Your task to perform on an android device: check android version Image 0: 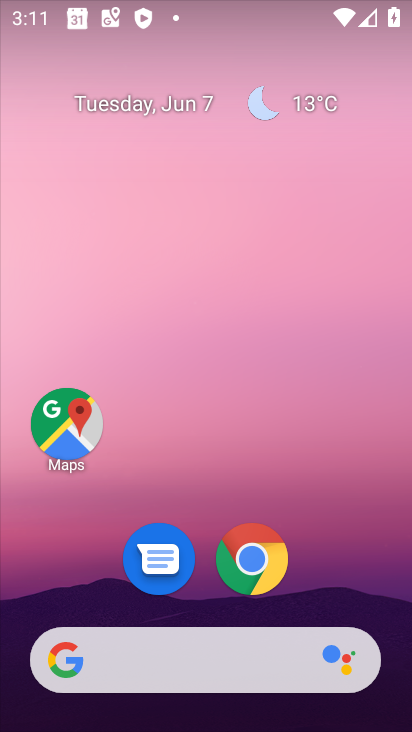
Step 0: drag from (355, 544) to (224, 134)
Your task to perform on an android device: check android version Image 1: 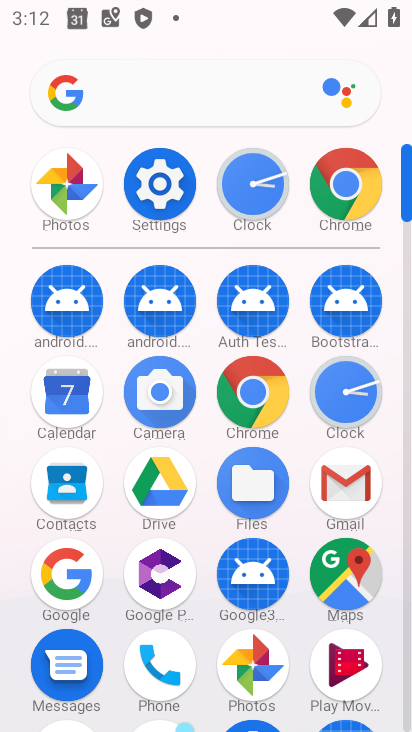
Step 1: click (160, 183)
Your task to perform on an android device: check android version Image 2: 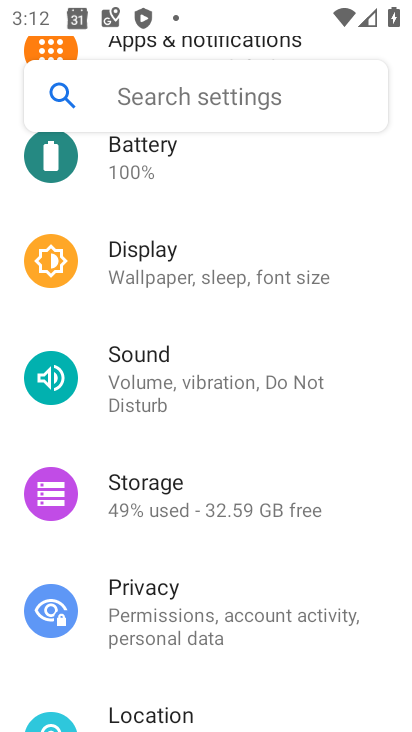
Step 2: drag from (195, 450) to (181, 319)
Your task to perform on an android device: check android version Image 3: 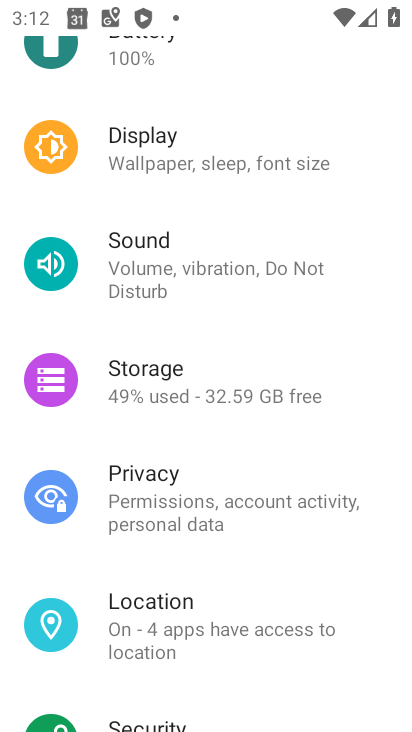
Step 3: drag from (191, 554) to (208, 434)
Your task to perform on an android device: check android version Image 4: 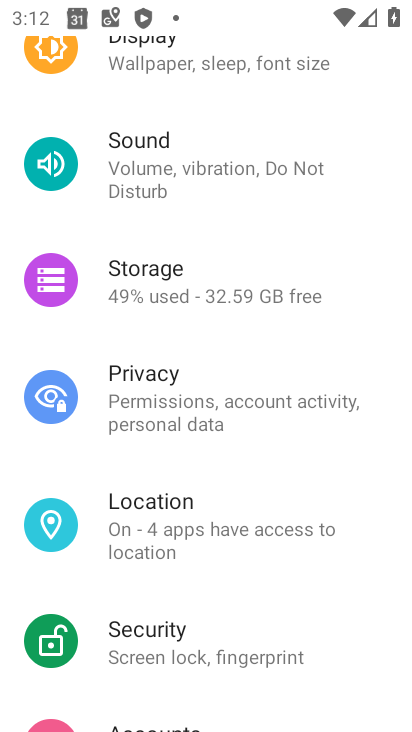
Step 4: drag from (194, 609) to (208, 470)
Your task to perform on an android device: check android version Image 5: 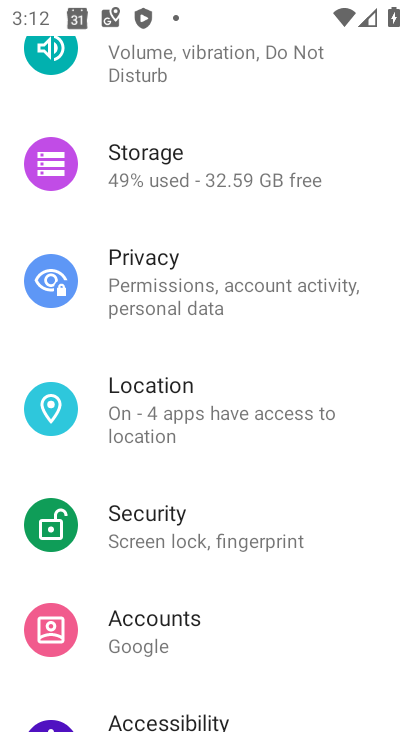
Step 5: drag from (244, 631) to (256, 449)
Your task to perform on an android device: check android version Image 6: 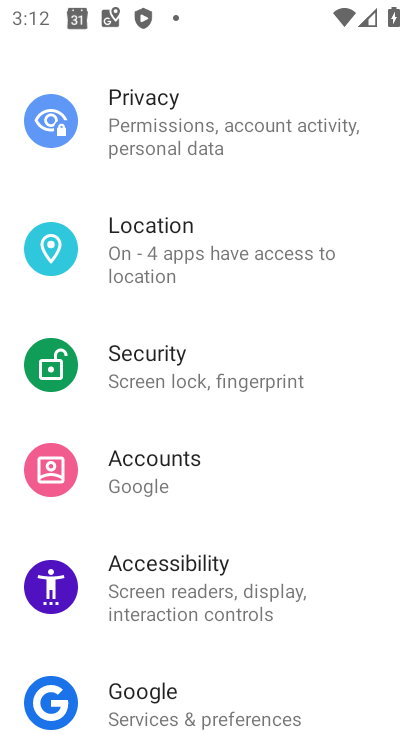
Step 6: drag from (206, 641) to (183, 482)
Your task to perform on an android device: check android version Image 7: 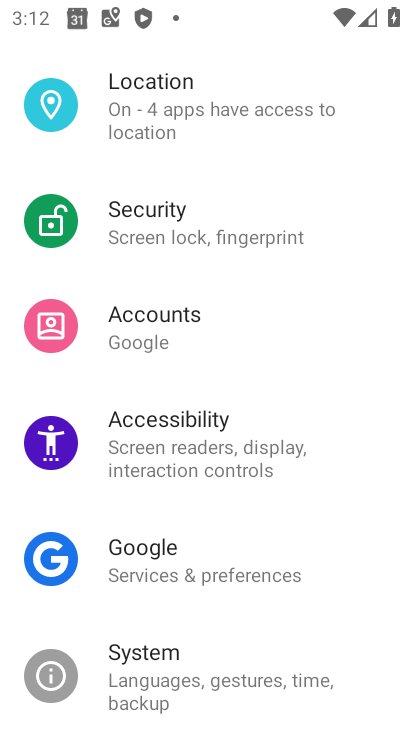
Step 7: drag from (189, 620) to (169, 470)
Your task to perform on an android device: check android version Image 8: 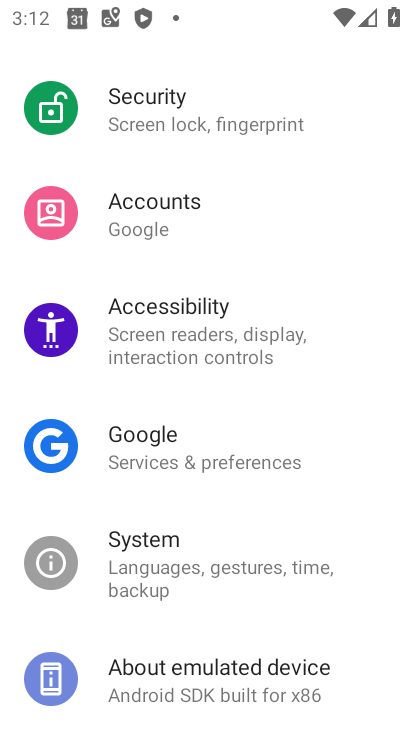
Step 8: drag from (184, 624) to (195, 461)
Your task to perform on an android device: check android version Image 9: 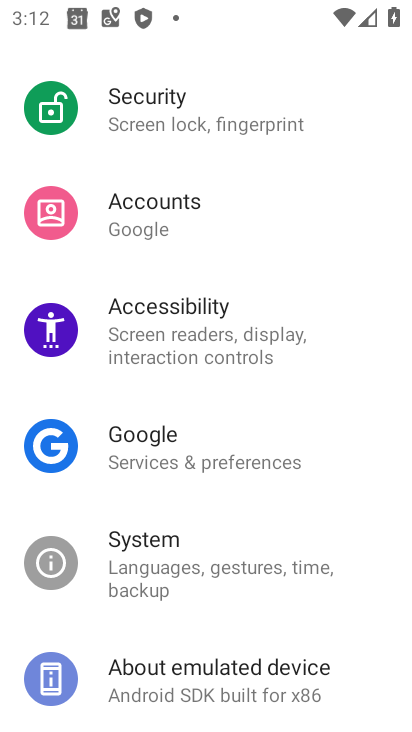
Step 9: click (201, 677)
Your task to perform on an android device: check android version Image 10: 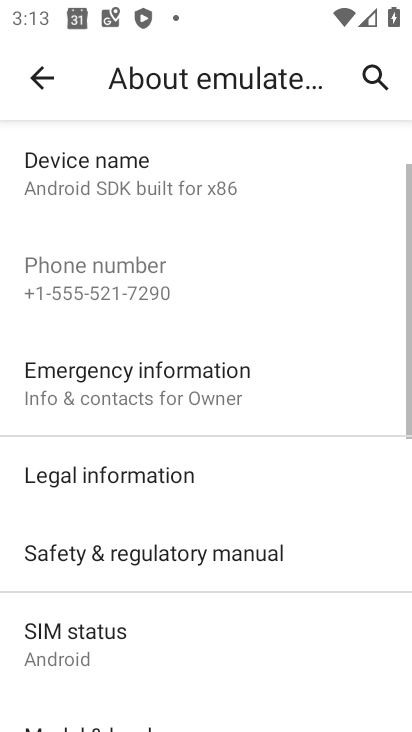
Step 10: drag from (120, 522) to (96, 382)
Your task to perform on an android device: check android version Image 11: 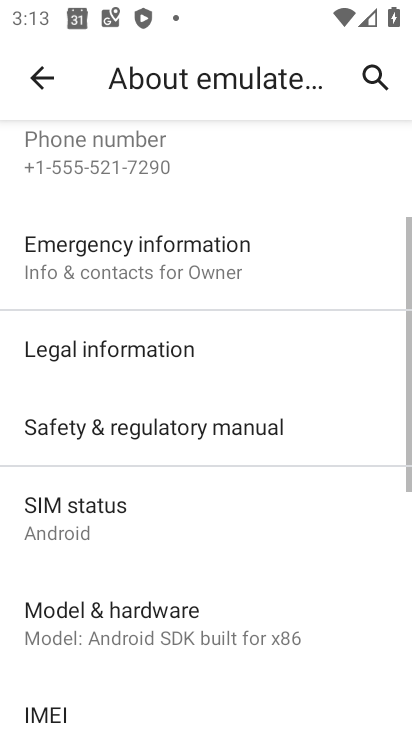
Step 11: drag from (119, 544) to (111, 408)
Your task to perform on an android device: check android version Image 12: 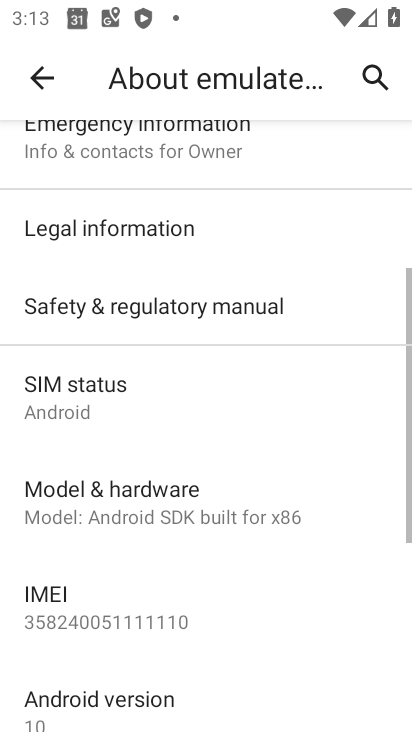
Step 12: drag from (101, 567) to (98, 446)
Your task to perform on an android device: check android version Image 13: 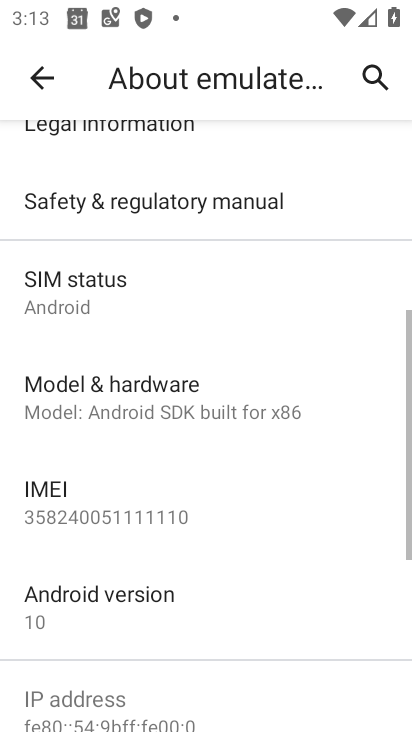
Step 13: click (116, 598)
Your task to perform on an android device: check android version Image 14: 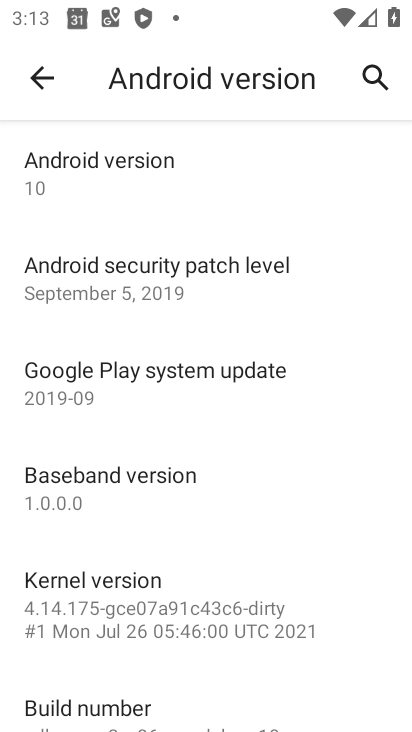
Step 14: task complete